Your task to perform on an android device: Show me the best rated 42 inch TV on Walmart. Image 0: 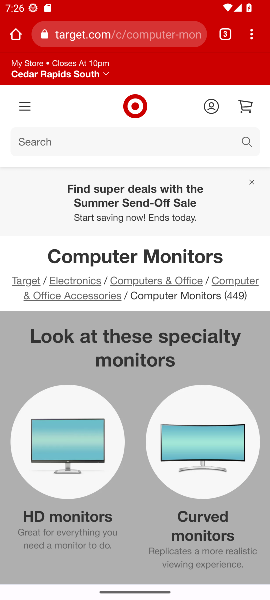
Step 0: drag from (123, 458) to (165, 119)
Your task to perform on an android device: Show me the best rated 42 inch TV on Walmart. Image 1: 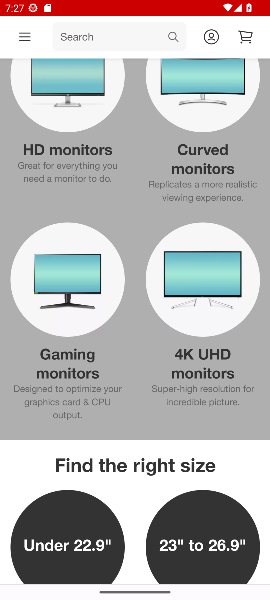
Step 1: task complete